Your task to perform on an android device: Open display settings Image 0: 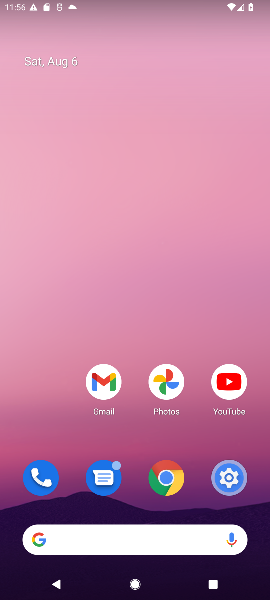
Step 0: drag from (150, 516) to (150, 205)
Your task to perform on an android device: Open display settings Image 1: 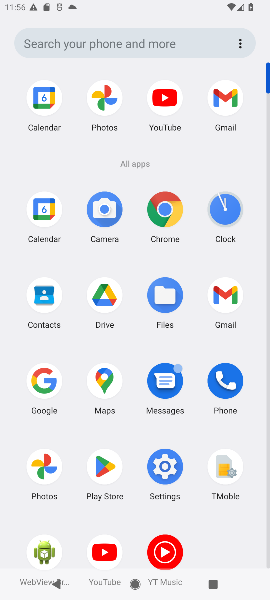
Step 1: click (168, 466)
Your task to perform on an android device: Open display settings Image 2: 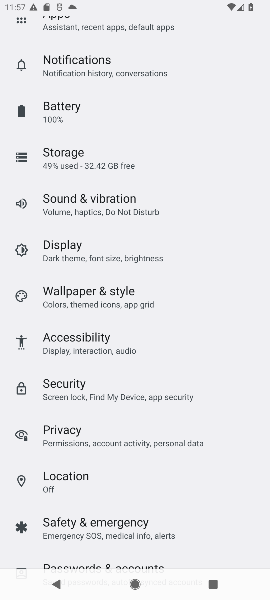
Step 2: click (73, 246)
Your task to perform on an android device: Open display settings Image 3: 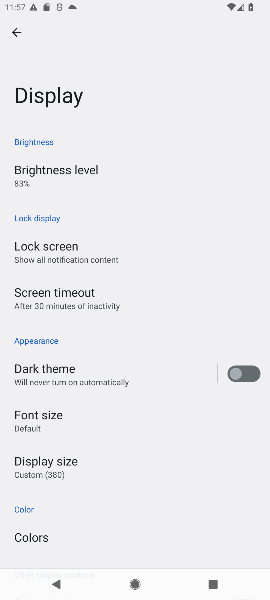
Step 3: task complete